Your task to perform on an android device: Empty the shopping cart on target. Add "razer blackwidow" to the cart on target, then select checkout. Image 0: 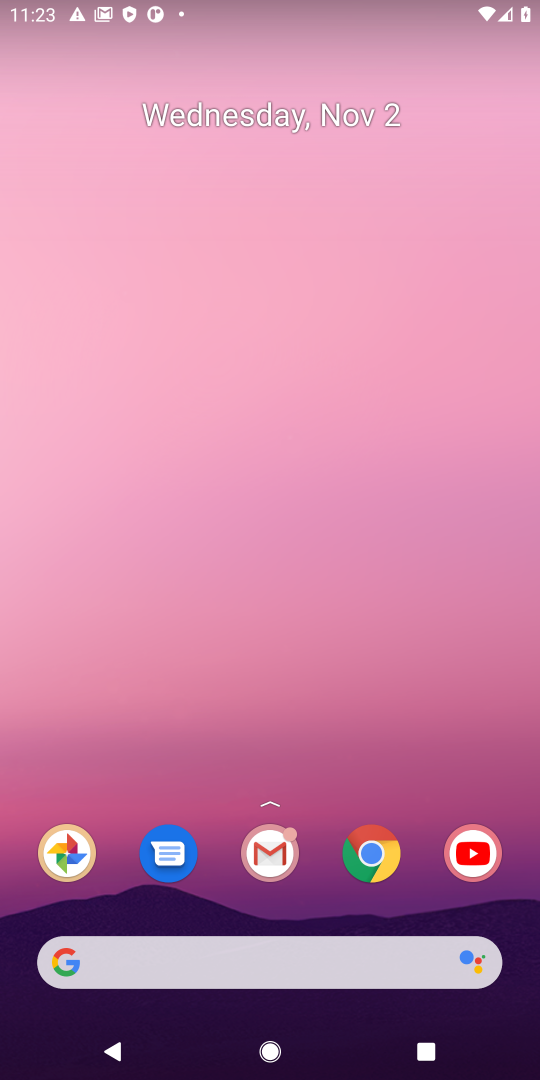
Step 0: click (372, 852)
Your task to perform on an android device: Empty the shopping cart on target. Add "razer blackwidow" to the cart on target, then select checkout. Image 1: 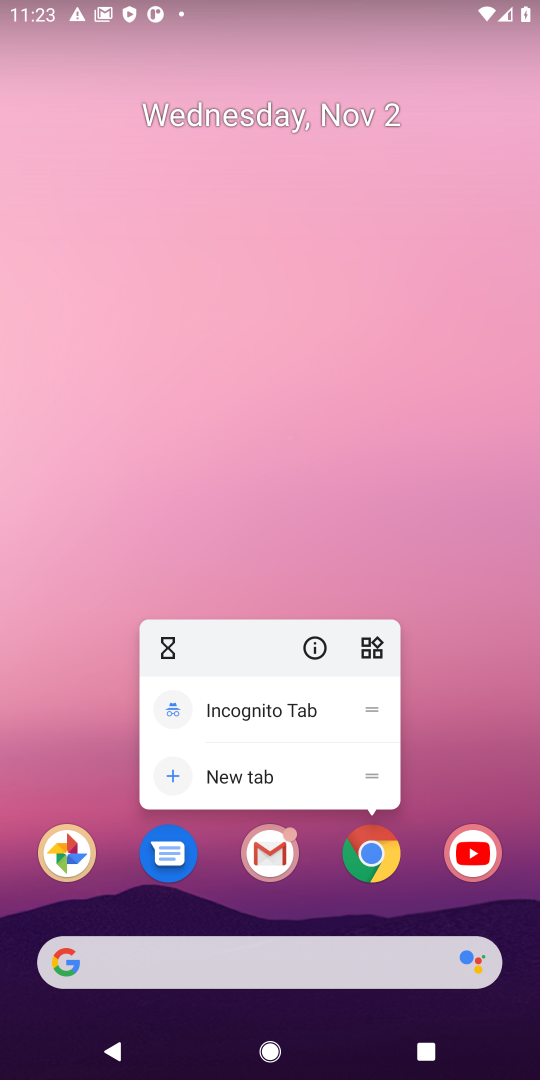
Step 1: click (367, 851)
Your task to perform on an android device: Empty the shopping cart on target. Add "razer blackwidow" to the cart on target, then select checkout. Image 2: 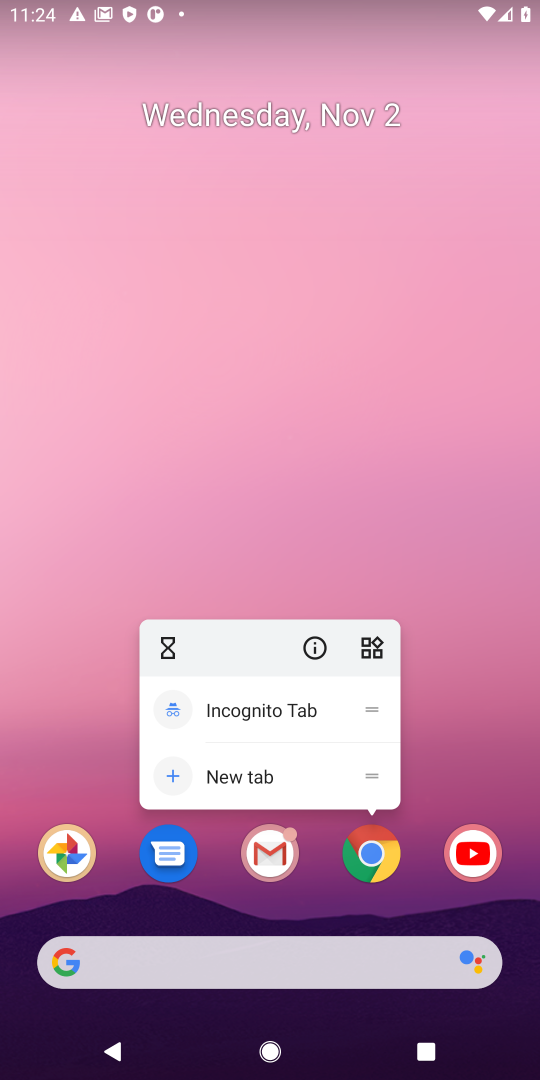
Step 2: click (383, 851)
Your task to perform on an android device: Empty the shopping cart on target. Add "razer blackwidow" to the cart on target, then select checkout. Image 3: 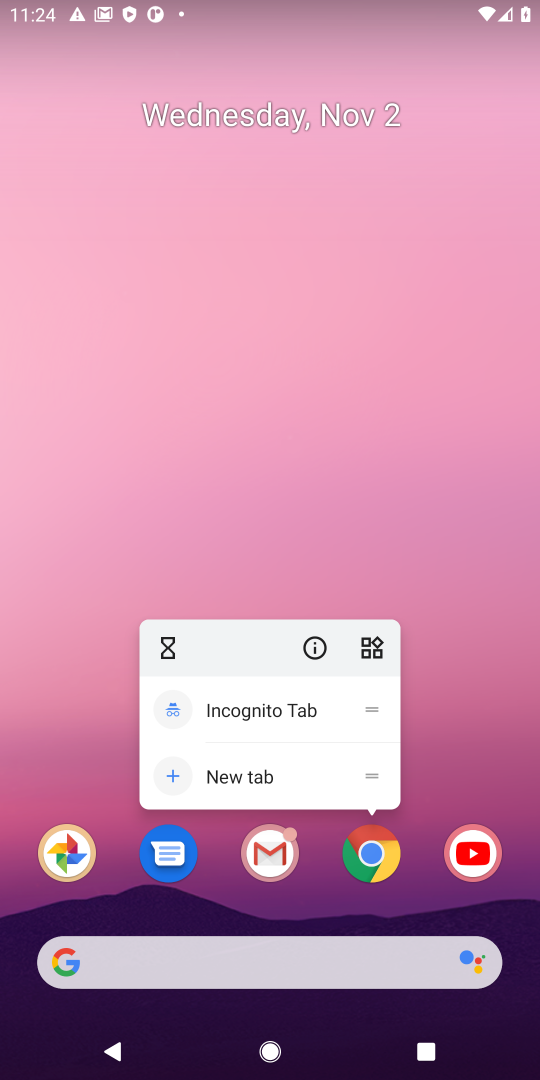
Step 3: click (377, 857)
Your task to perform on an android device: Empty the shopping cart on target. Add "razer blackwidow" to the cart on target, then select checkout. Image 4: 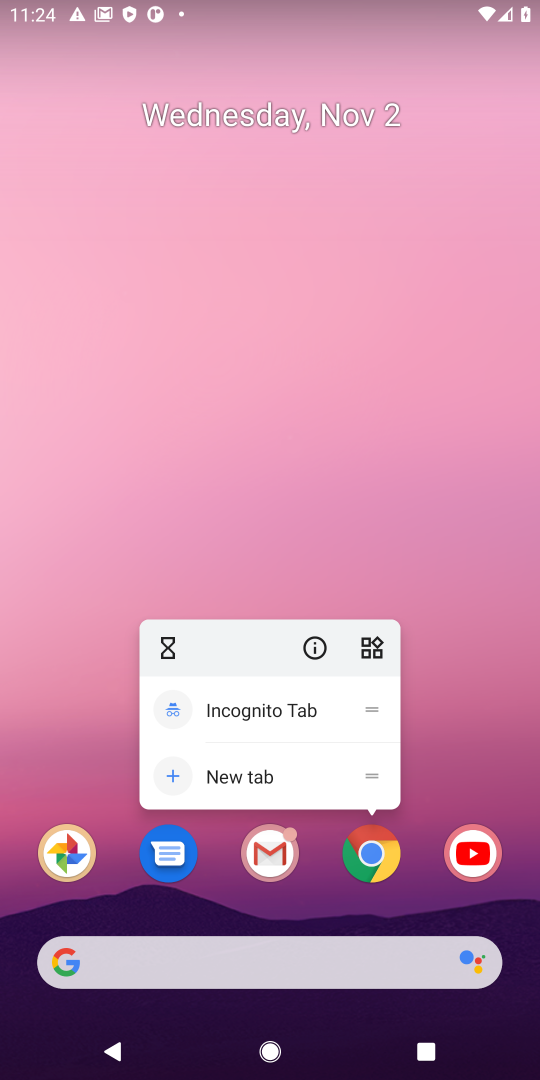
Step 4: click (370, 863)
Your task to perform on an android device: Empty the shopping cart on target. Add "razer blackwidow" to the cart on target, then select checkout. Image 5: 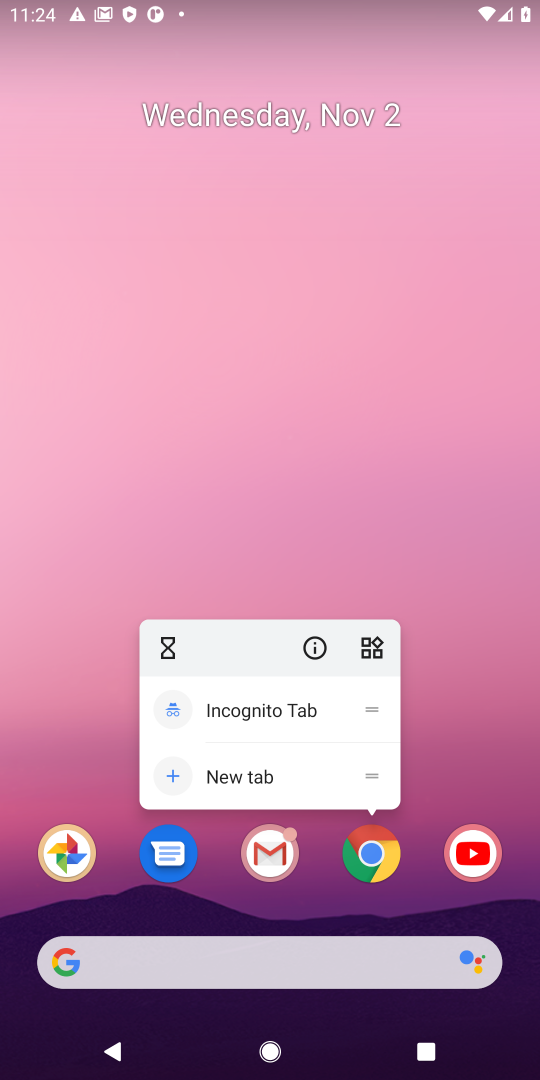
Step 5: click (373, 854)
Your task to perform on an android device: Empty the shopping cart on target. Add "razer blackwidow" to the cart on target, then select checkout. Image 6: 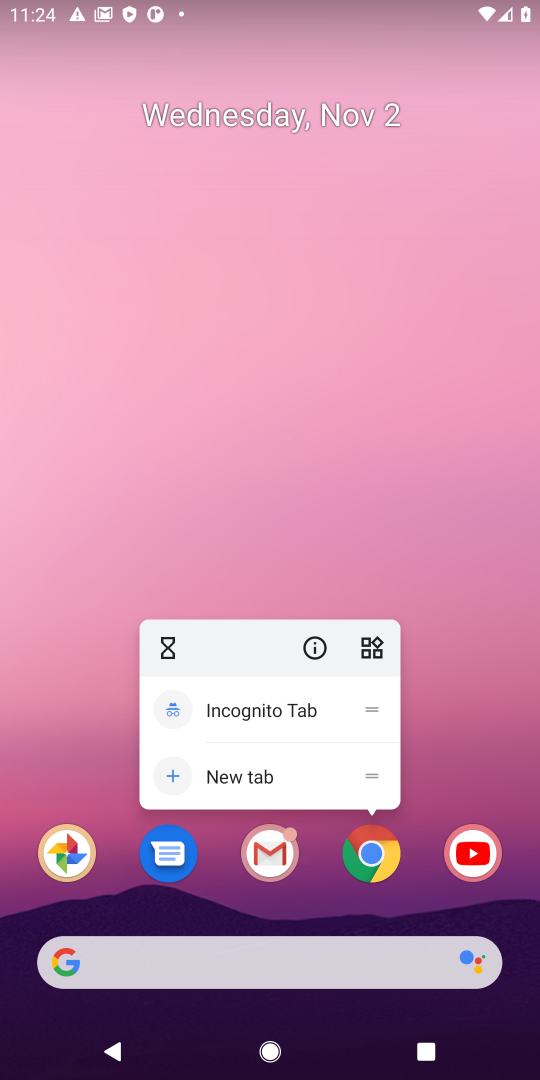
Step 6: click (373, 857)
Your task to perform on an android device: Empty the shopping cart on target. Add "razer blackwidow" to the cart on target, then select checkout. Image 7: 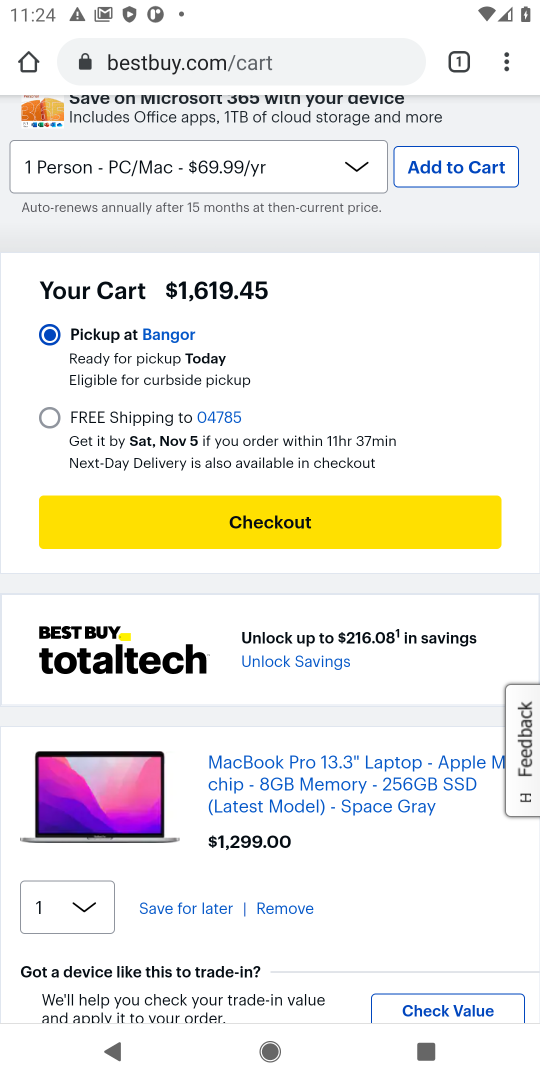
Step 7: click (273, 66)
Your task to perform on an android device: Empty the shopping cart on target. Add "razer blackwidow" to the cart on target, then select checkout. Image 8: 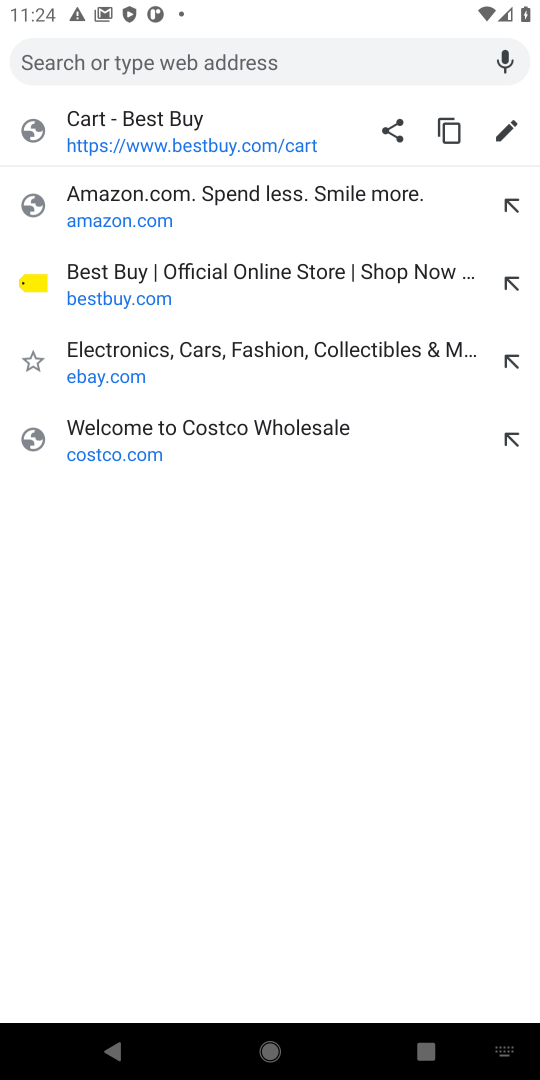
Step 8: click (293, 58)
Your task to perform on an android device: Empty the shopping cart on target. Add "razer blackwidow" to the cart on target, then select checkout. Image 9: 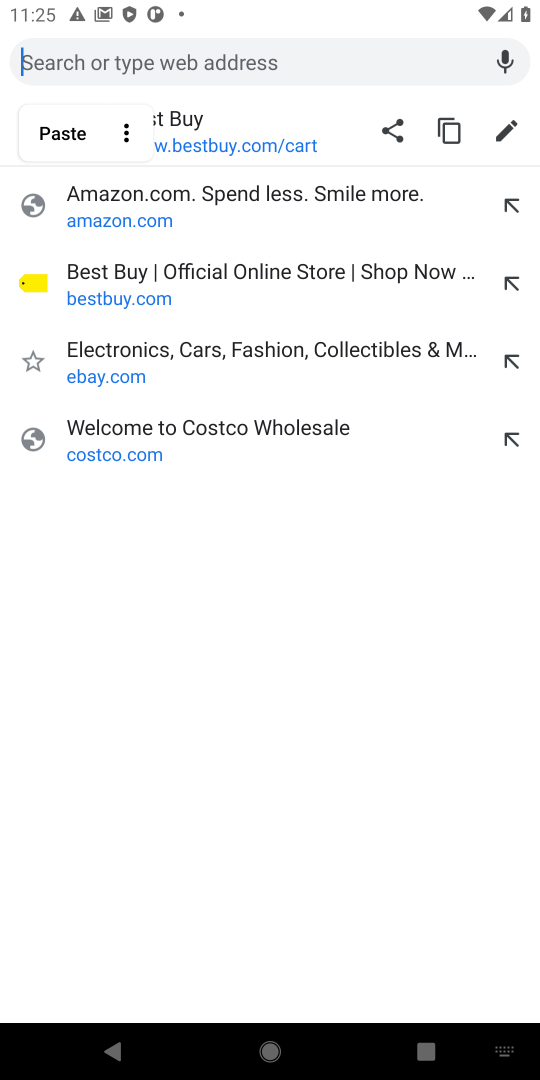
Step 9: type "target"
Your task to perform on an android device: Empty the shopping cart on target. Add "razer blackwidow" to the cart on target, then select checkout. Image 10: 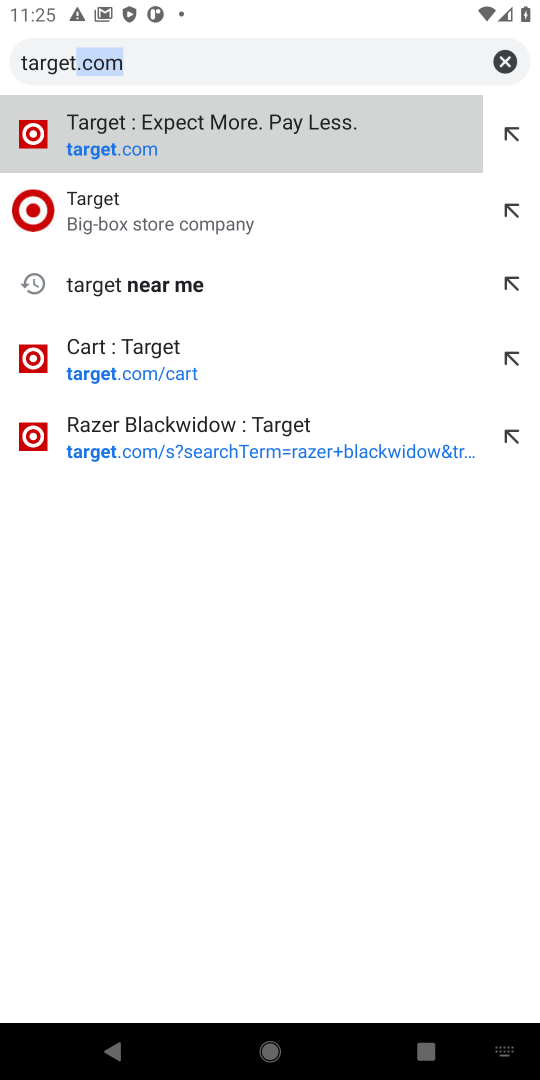
Step 10: press enter
Your task to perform on an android device: Empty the shopping cart on target. Add "razer blackwidow" to the cart on target, then select checkout. Image 11: 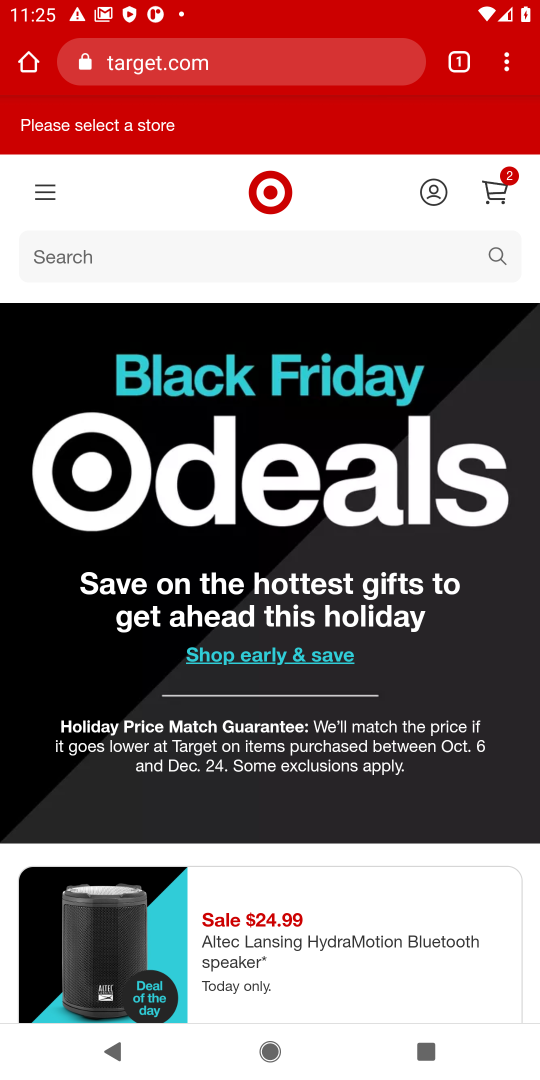
Step 11: click (76, 258)
Your task to perform on an android device: Empty the shopping cart on target. Add "razer blackwidow" to the cart on target, then select checkout. Image 12: 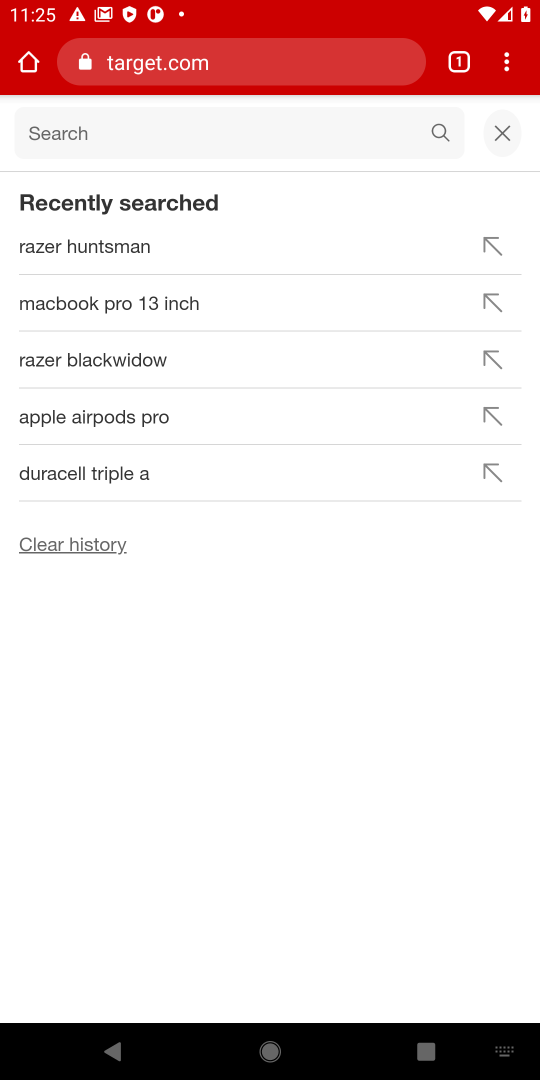
Step 12: type "razer blackwidow"
Your task to perform on an android device: Empty the shopping cart on target. Add "razer blackwidow" to the cart on target, then select checkout. Image 13: 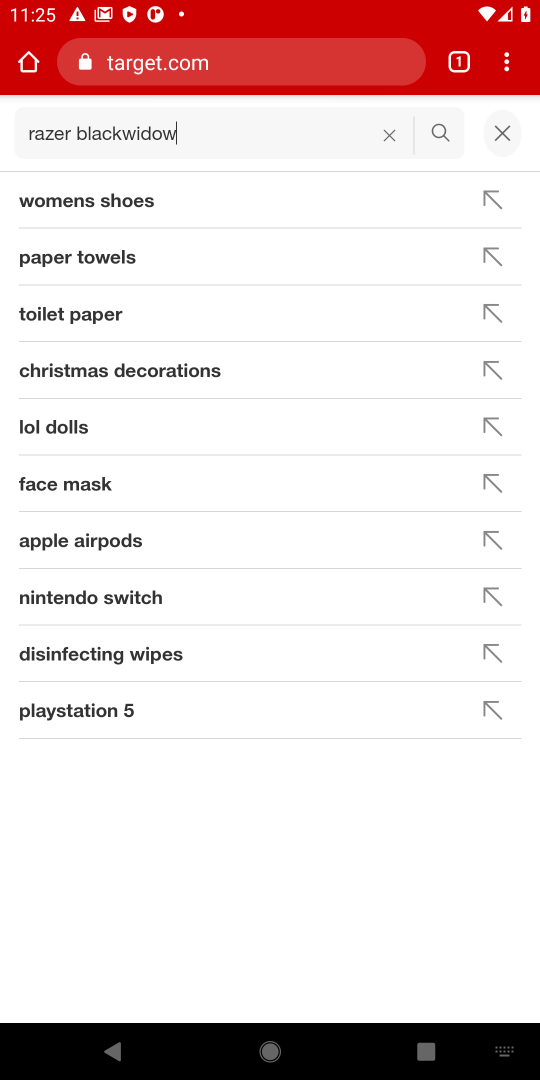
Step 13: press enter
Your task to perform on an android device: Empty the shopping cart on target. Add "razer blackwidow" to the cart on target, then select checkout. Image 14: 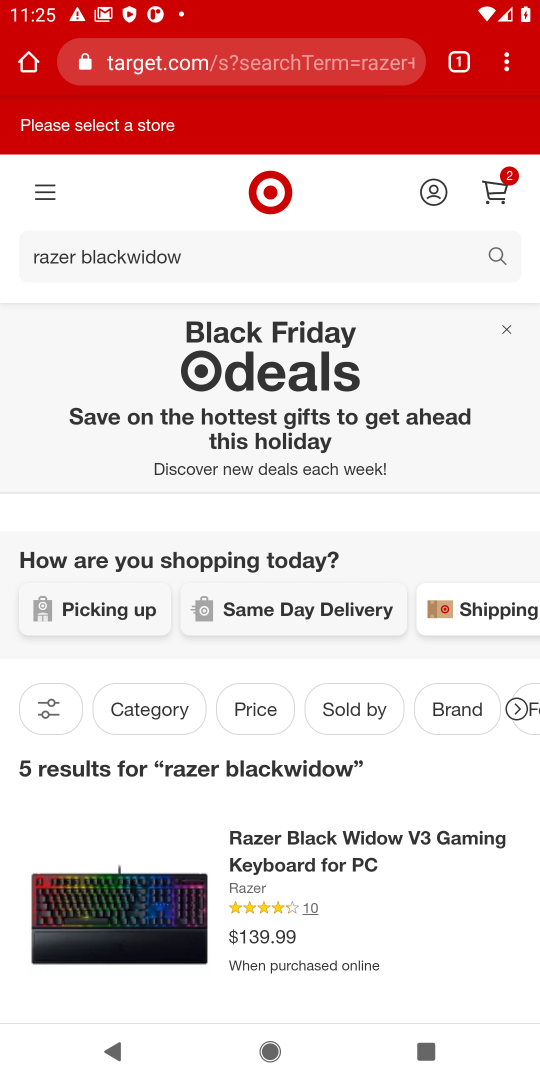
Step 14: click (317, 893)
Your task to perform on an android device: Empty the shopping cart on target. Add "razer blackwidow" to the cart on target, then select checkout. Image 15: 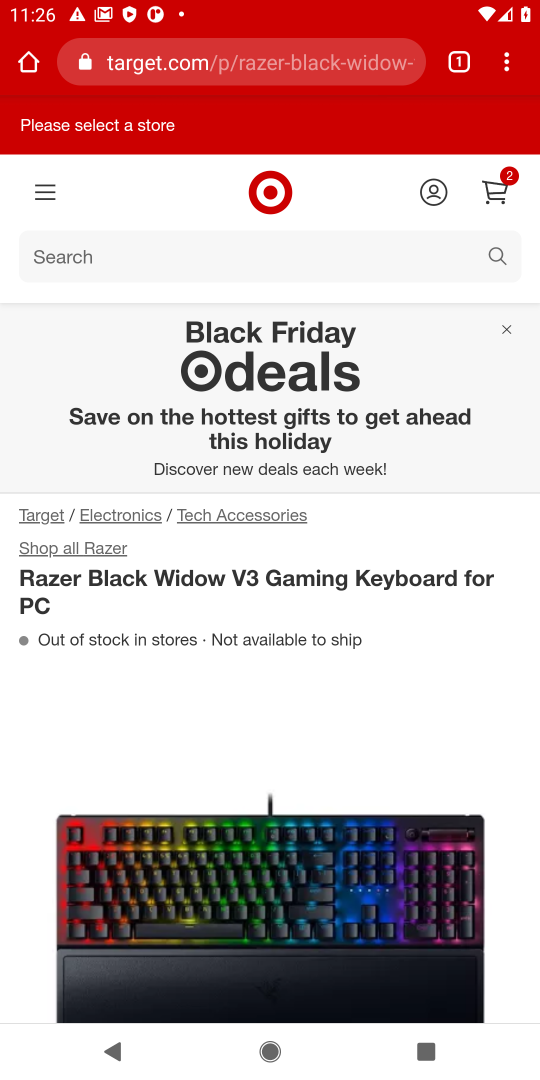
Step 15: drag from (217, 778) to (413, 360)
Your task to perform on an android device: Empty the shopping cart on target. Add "razer blackwidow" to the cart on target, then select checkout. Image 16: 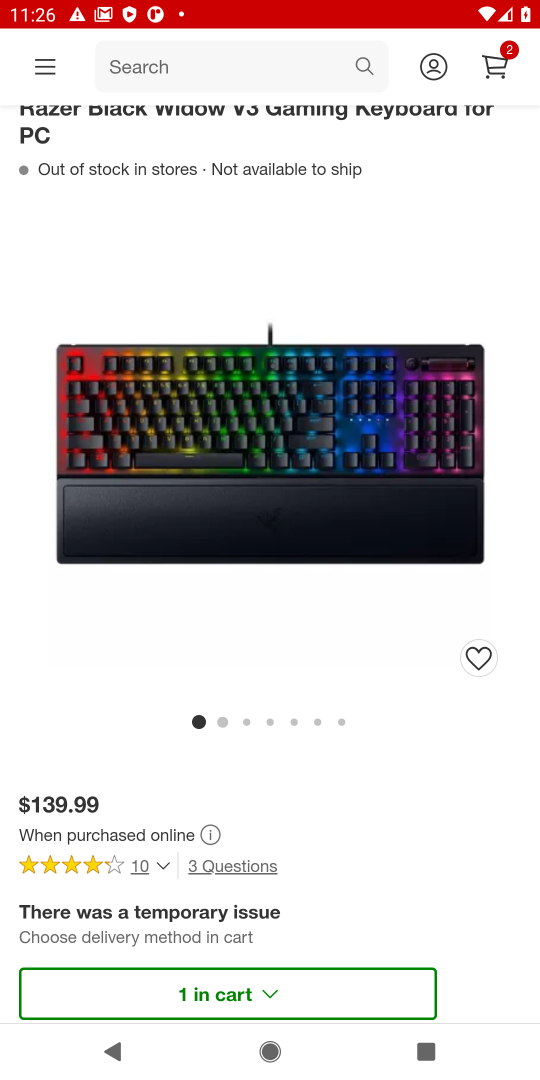
Step 16: drag from (216, 828) to (397, 438)
Your task to perform on an android device: Empty the shopping cart on target. Add "razer blackwidow" to the cart on target, then select checkout. Image 17: 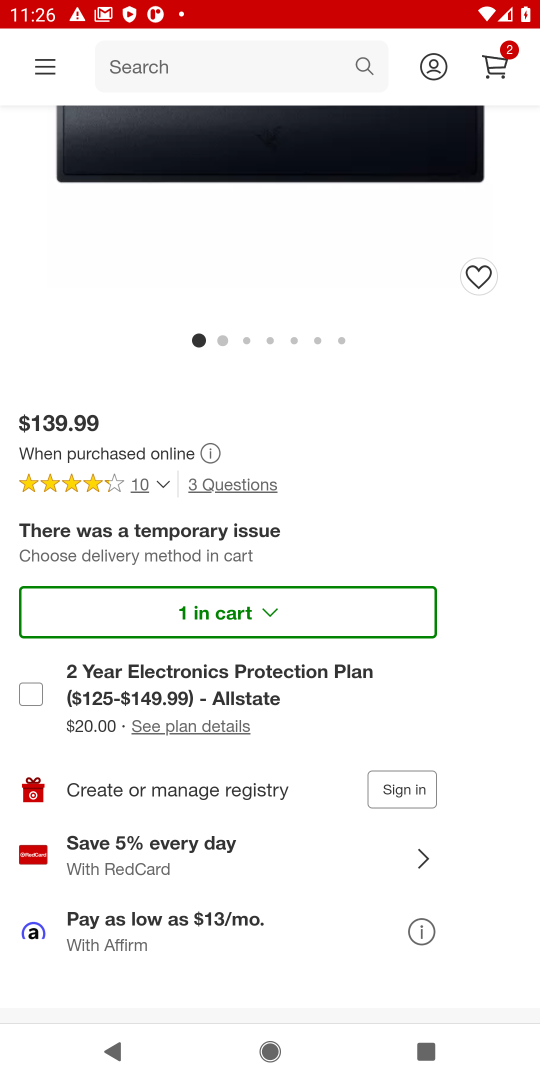
Step 17: drag from (360, 331) to (317, 841)
Your task to perform on an android device: Empty the shopping cart on target. Add "razer blackwidow" to the cart on target, then select checkout. Image 18: 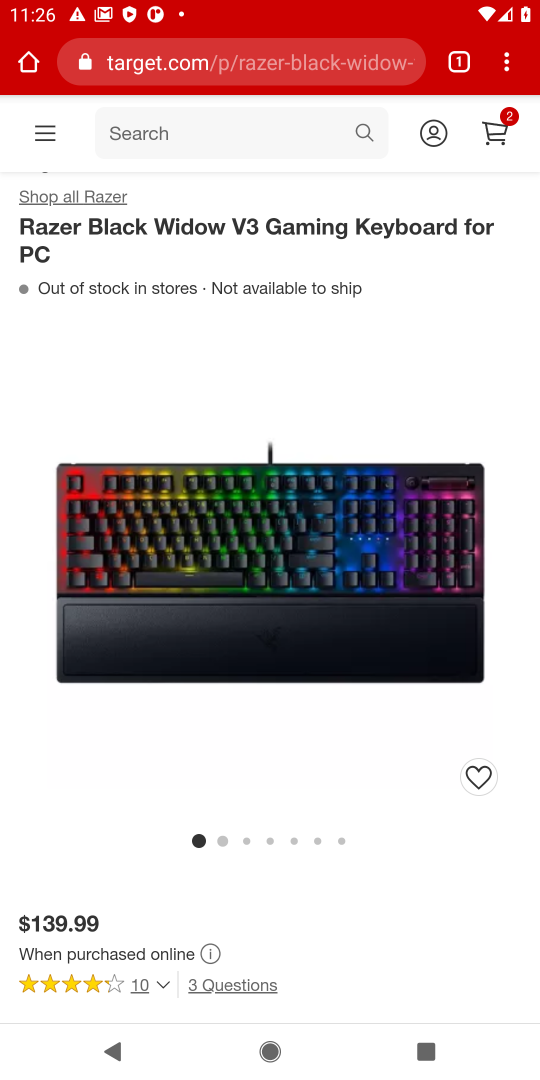
Step 18: click (494, 121)
Your task to perform on an android device: Empty the shopping cart on target. Add "razer blackwidow" to the cart on target, then select checkout. Image 19: 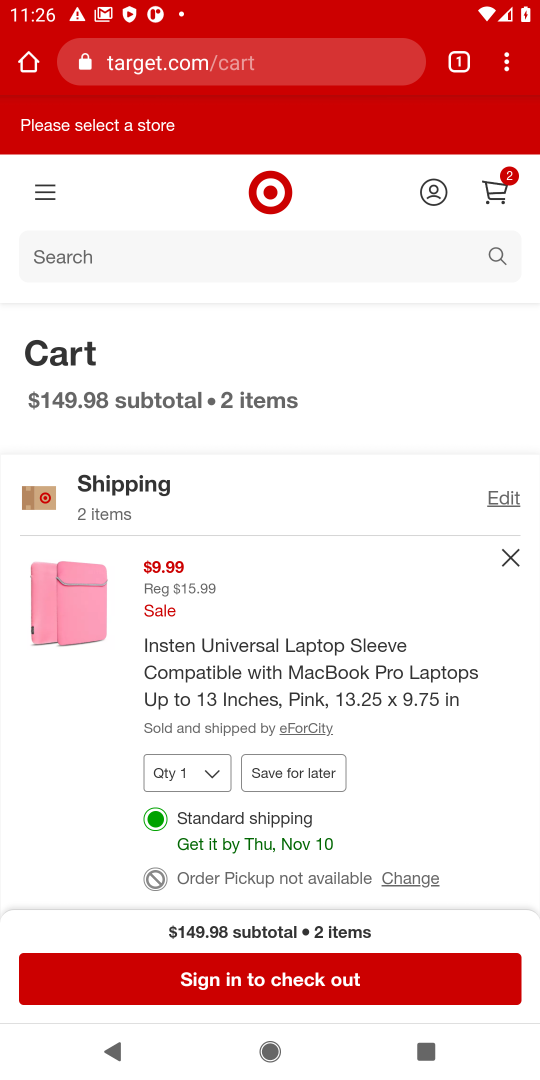
Step 19: click (509, 553)
Your task to perform on an android device: Empty the shopping cart on target. Add "razer blackwidow" to the cart on target, then select checkout. Image 20: 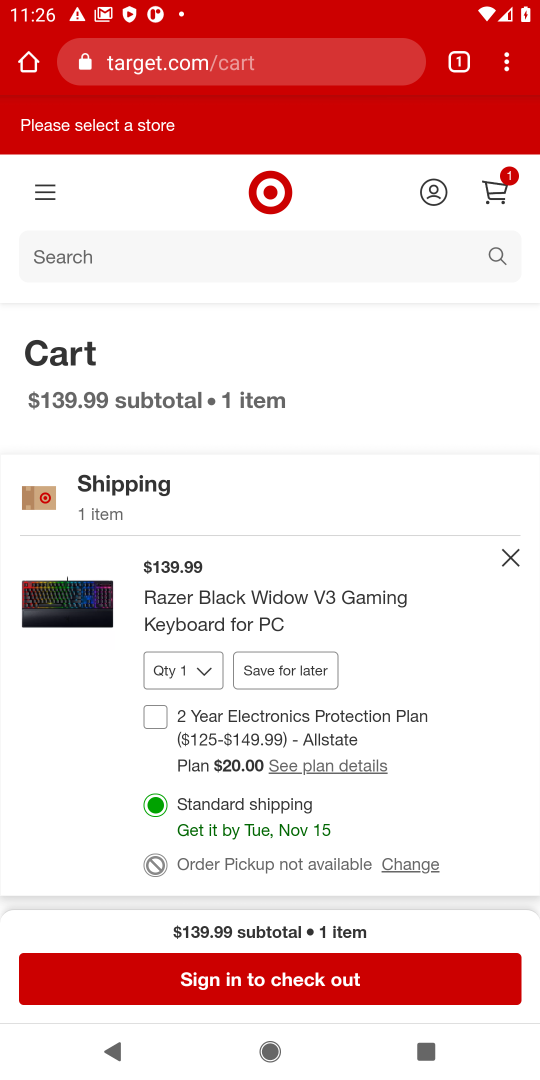
Step 20: drag from (281, 839) to (367, 601)
Your task to perform on an android device: Empty the shopping cart on target. Add "razer blackwidow" to the cart on target, then select checkout. Image 21: 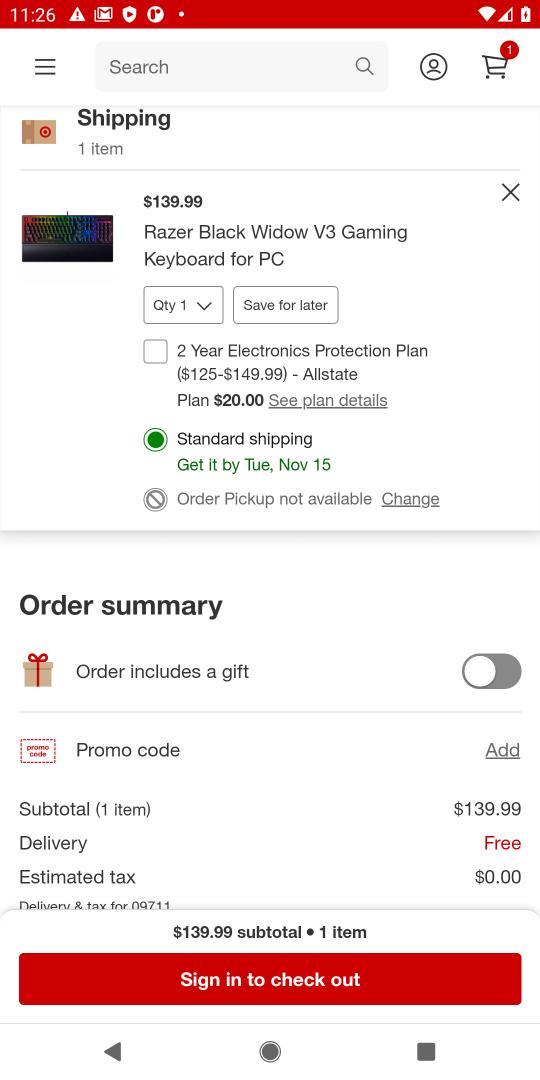
Step 21: click (285, 981)
Your task to perform on an android device: Empty the shopping cart on target. Add "razer blackwidow" to the cart on target, then select checkout. Image 22: 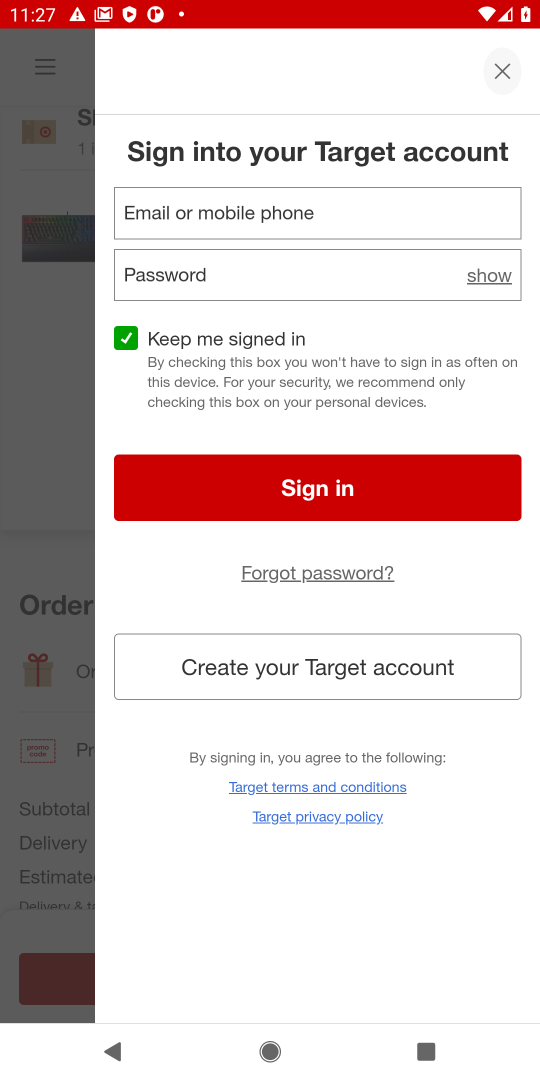
Step 22: task complete